Your task to perform on an android device: Go to accessibility settings Image 0: 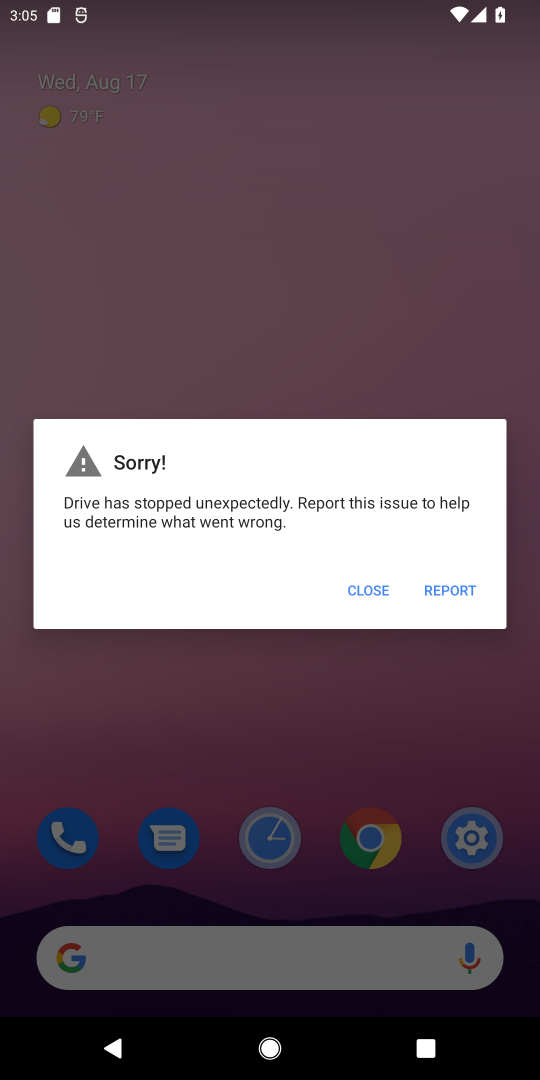
Step 0: click (245, 941)
Your task to perform on an android device: Go to accessibility settings Image 1: 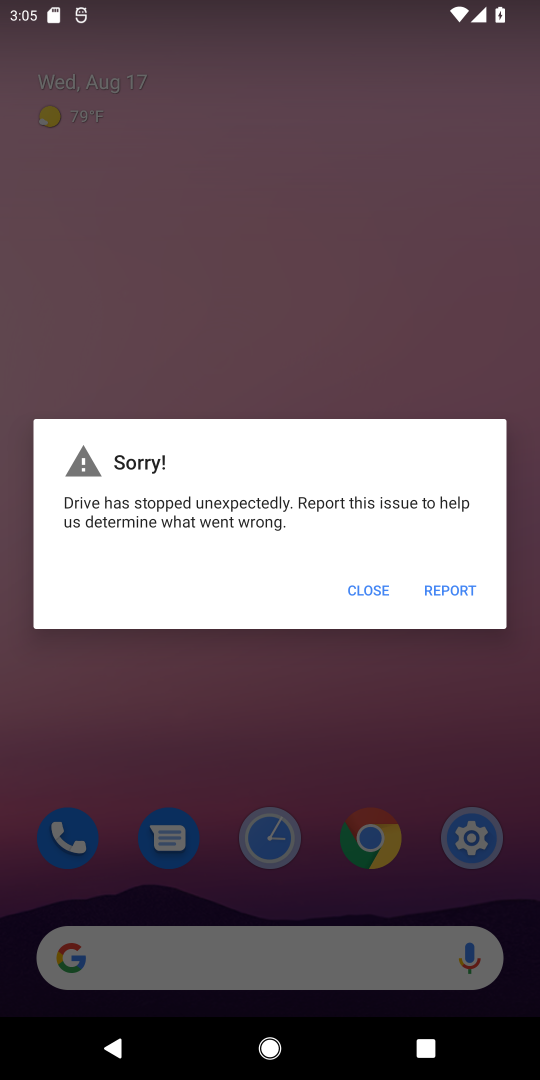
Step 1: click (368, 591)
Your task to perform on an android device: Go to accessibility settings Image 2: 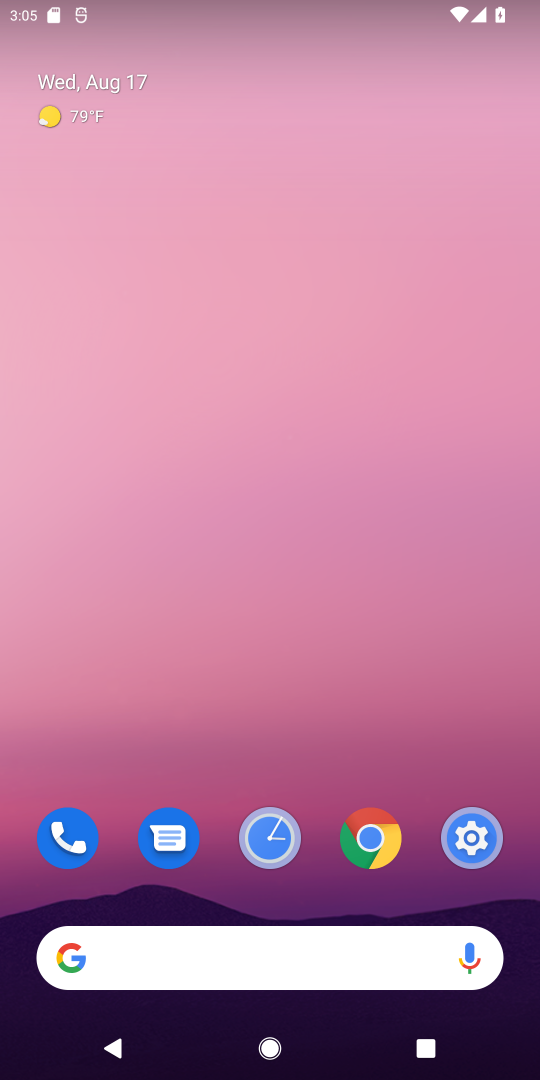
Step 2: drag from (291, 929) to (309, 425)
Your task to perform on an android device: Go to accessibility settings Image 3: 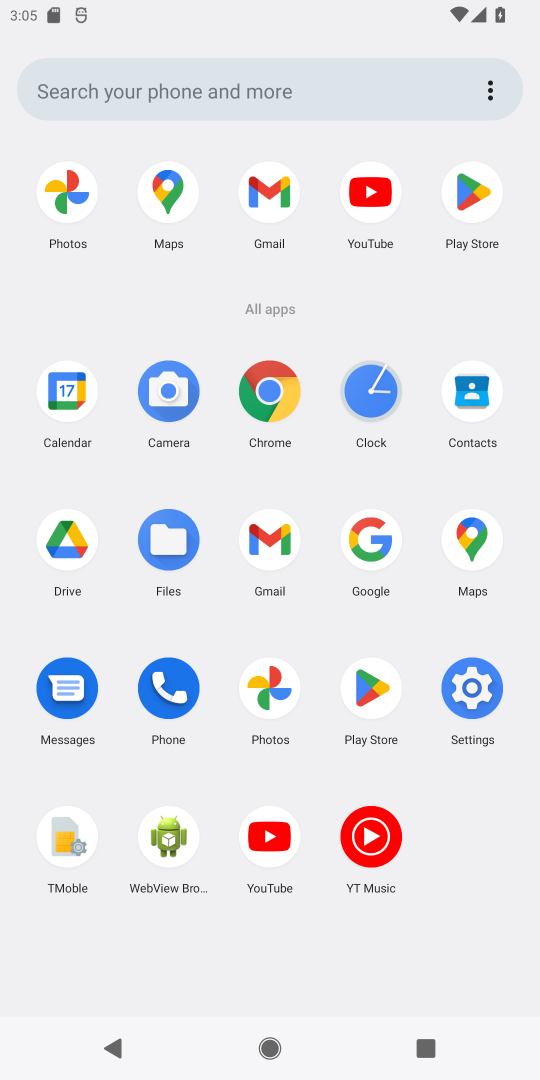
Step 3: click (454, 686)
Your task to perform on an android device: Go to accessibility settings Image 4: 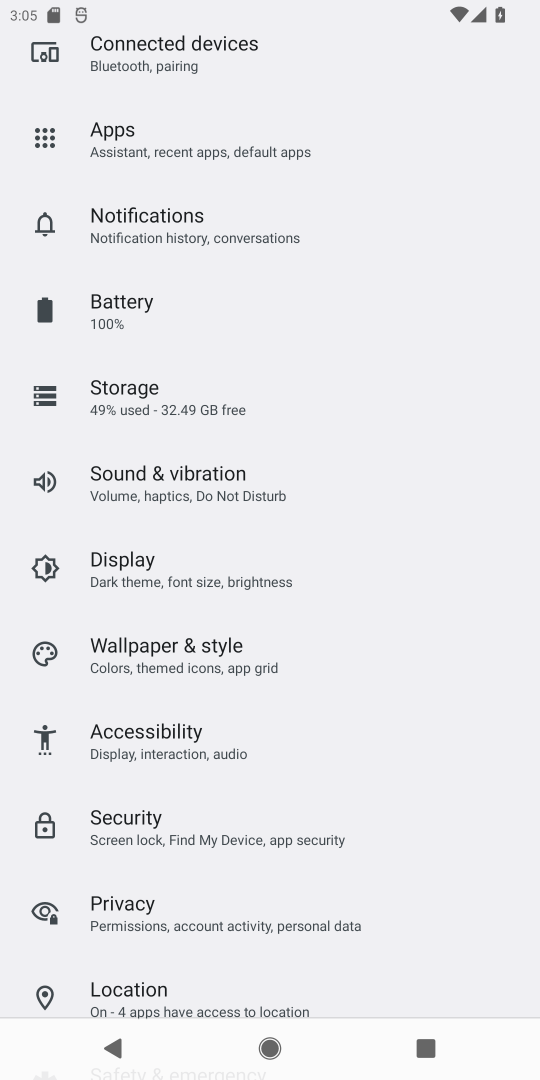
Step 4: click (173, 747)
Your task to perform on an android device: Go to accessibility settings Image 5: 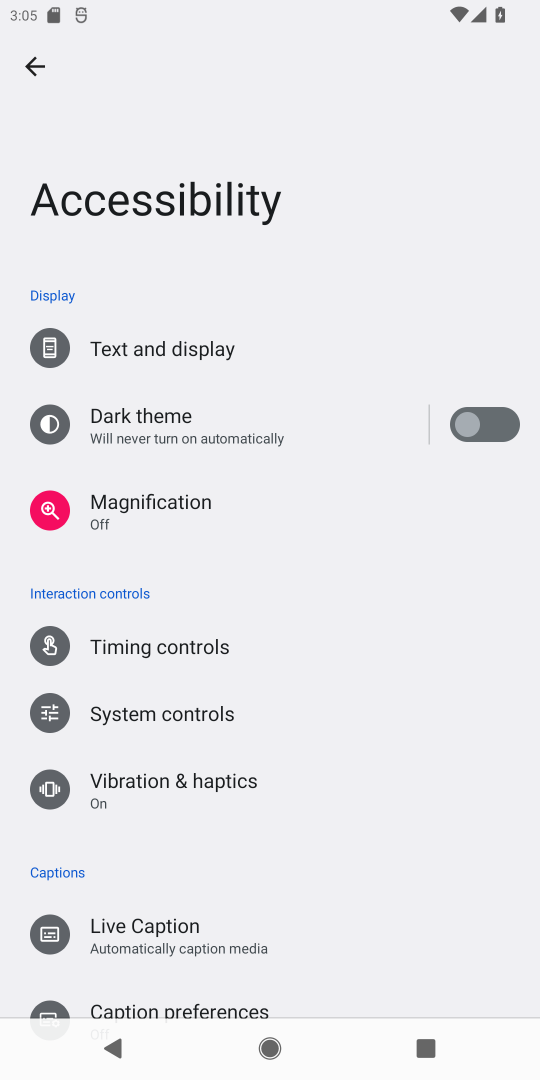
Step 5: task complete